Your task to perform on an android device: What's on my calendar tomorrow? Image 0: 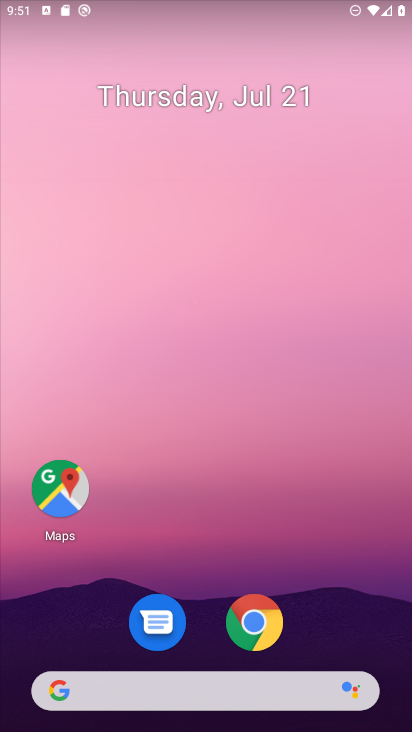
Step 0: drag from (172, 704) to (138, 6)
Your task to perform on an android device: What's on my calendar tomorrow? Image 1: 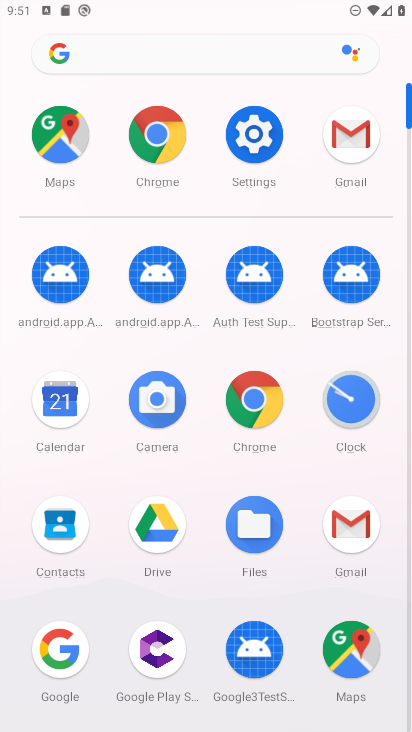
Step 1: click (73, 403)
Your task to perform on an android device: What's on my calendar tomorrow? Image 2: 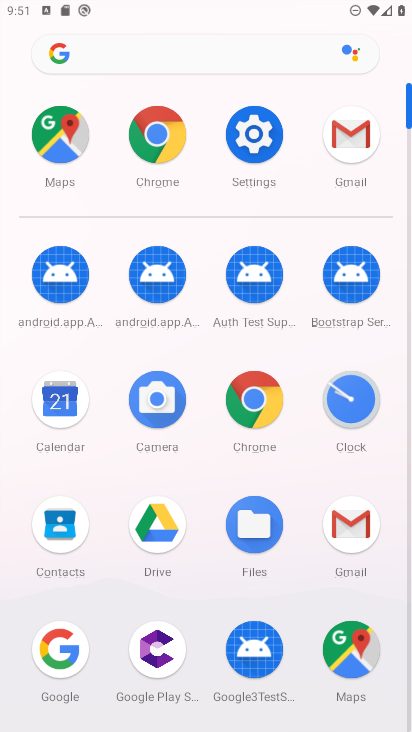
Step 2: click (73, 403)
Your task to perform on an android device: What's on my calendar tomorrow? Image 3: 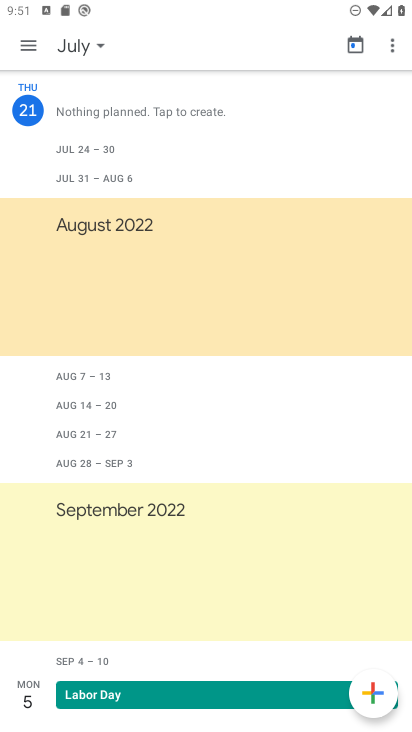
Step 3: click (68, 48)
Your task to perform on an android device: What's on my calendar tomorrow? Image 4: 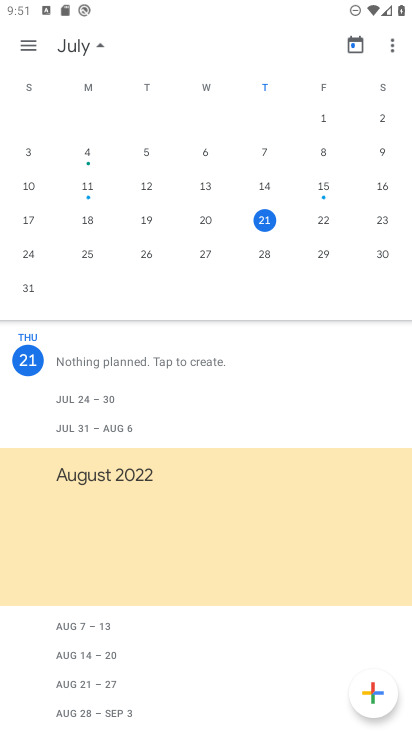
Step 4: click (323, 217)
Your task to perform on an android device: What's on my calendar tomorrow? Image 5: 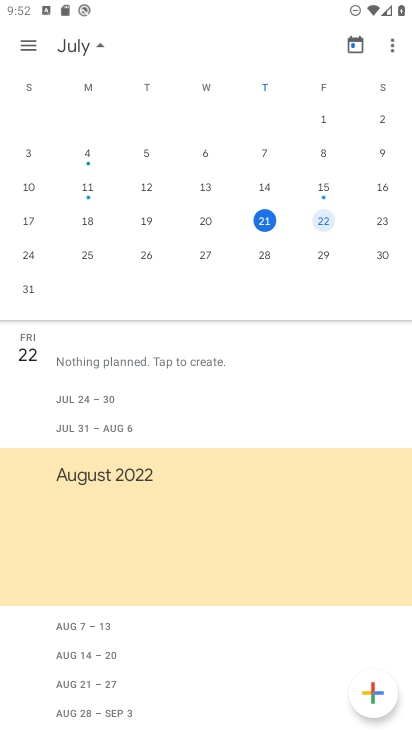
Step 5: task complete